Your task to perform on an android device: see sites visited before in the chrome app Image 0: 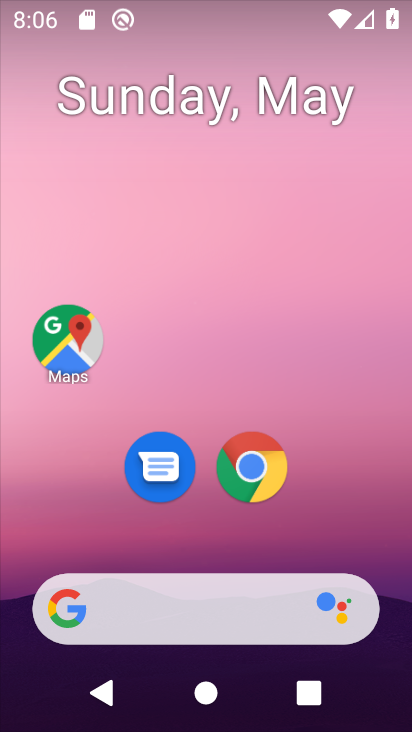
Step 0: drag from (369, 516) to (359, 45)
Your task to perform on an android device: see sites visited before in the chrome app Image 1: 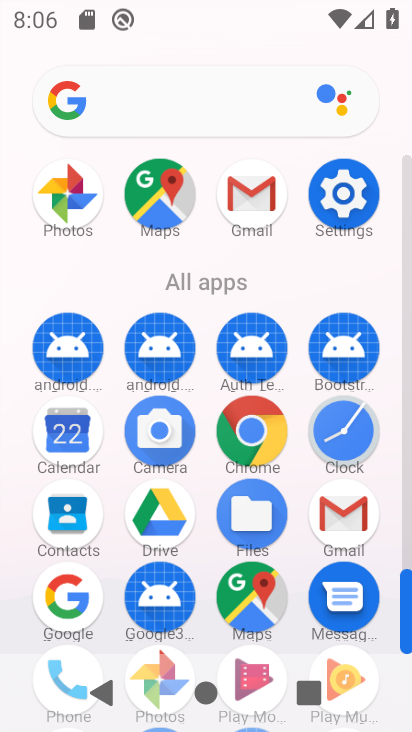
Step 1: click (227, 438)
Your task to perform on an android device: see sites visited before in the chrome app Image 2: 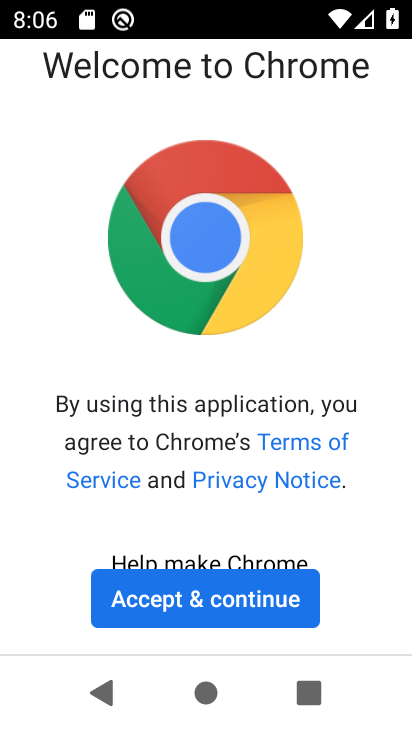
Step 2: click (234, 602)
Your task to perform on an android device: see sites visited before in the chrome app Image 3: 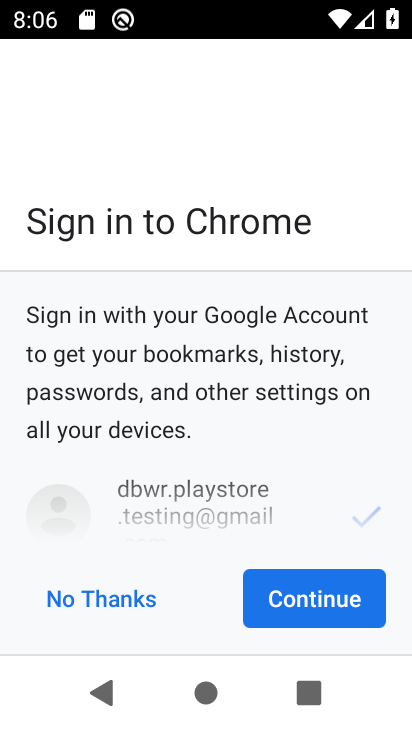
Step 3: click (335, 609)
Your task to perform on an android device: see sites visited before in the chrome app Image 4: 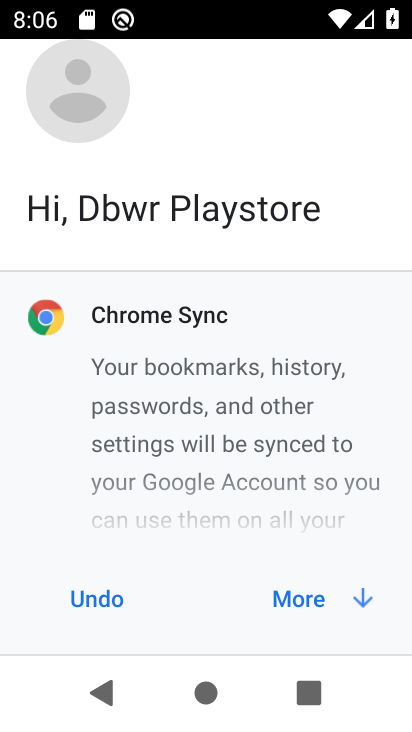
Step 4: click (330, 603)
Your task to perform on an android device: see sites visited before in the chrome app Image 5: 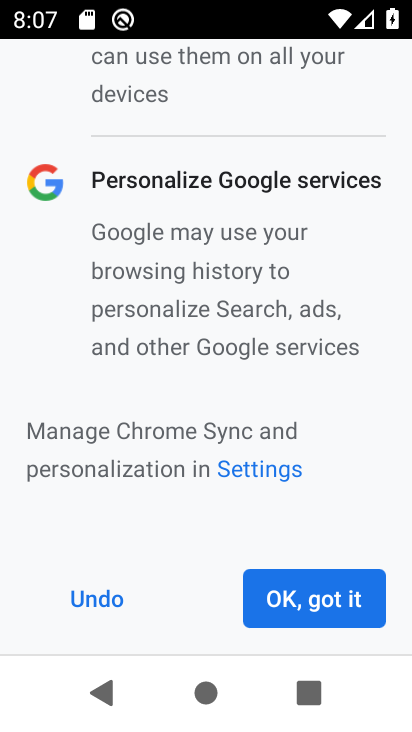
Step 5: click (330, 603)
Your task to perform on an android device: see sites visited before in the chrome app Image 6: 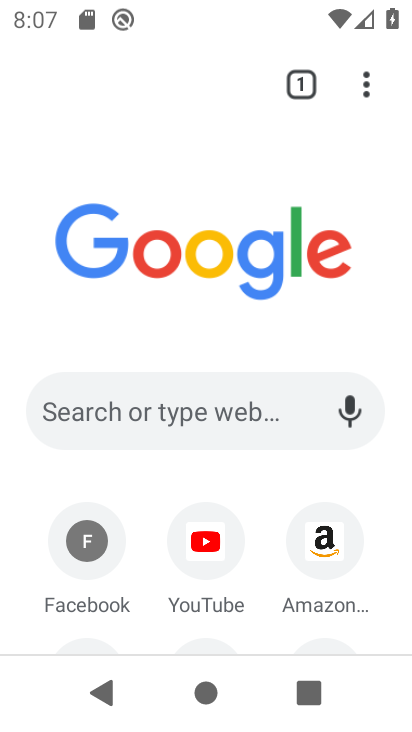
Step 6: task complete